Your task to perform on an android device: turn on the 24-hour format for clock Image 0: 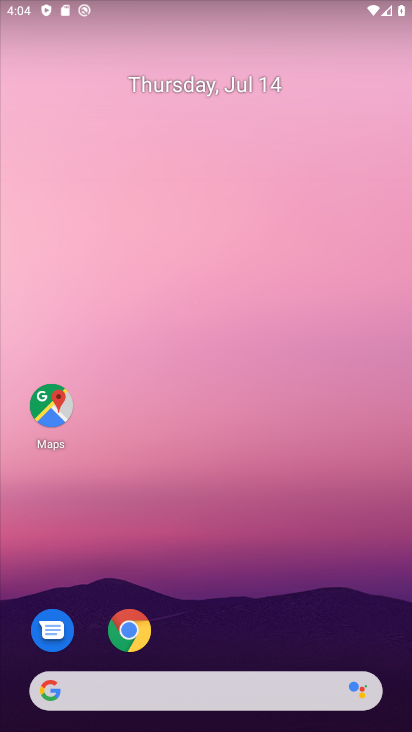
Step 0: drag from (224, 307) to (231, 113)
Your task to perform on an android device: turn on the 24-hour format for clock Image 1: 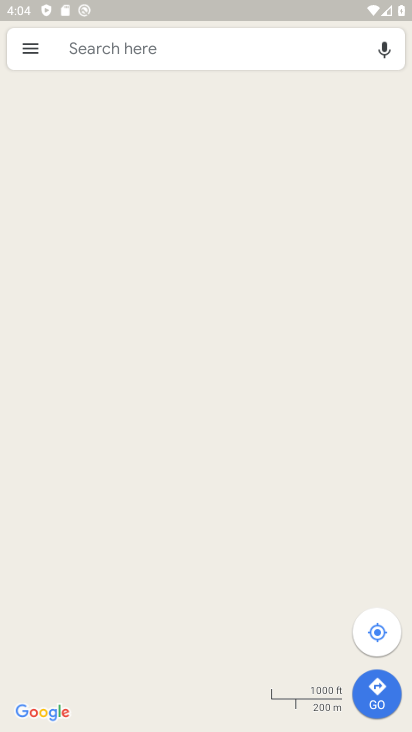
Step 1: press home button
Your task to perform on an android device: turn on the 24-hour format for clock Image 2: 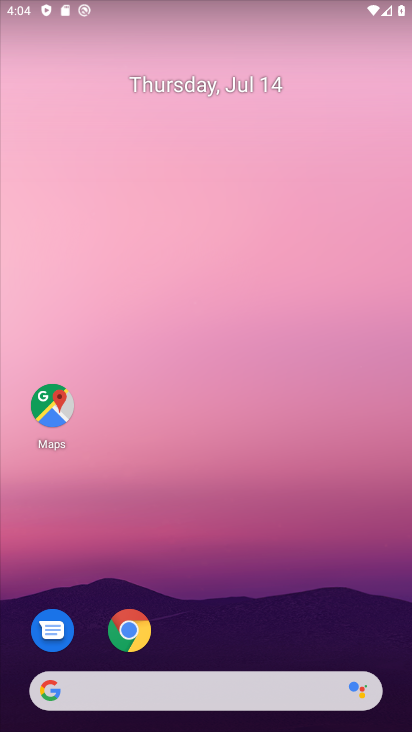
Step 2: drag from (207, 606) to (227, 27)
Your task to perform on an android device: turn on the 24-hour format for clock Image 3: 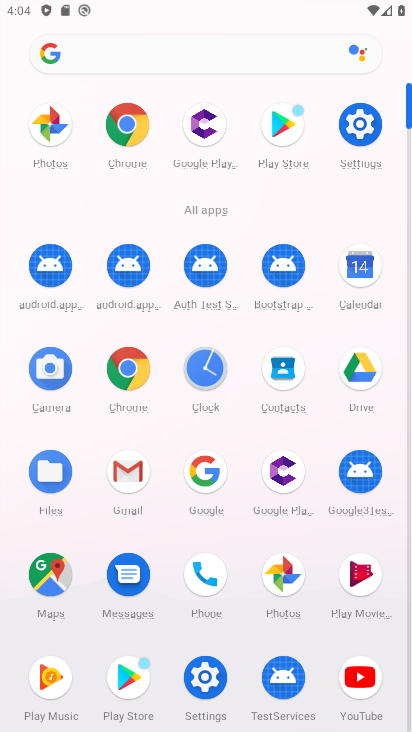
Step 3: click (204, 362)
Your task to perform on an android device: turn on the 24-hour format for clock Image 4: 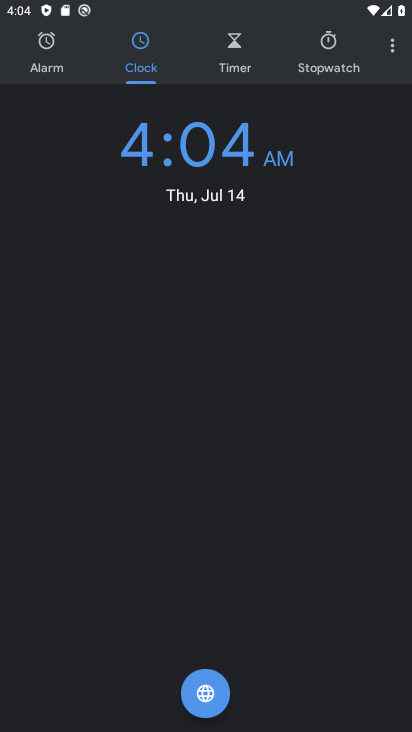
Step 4: click (388, 44)
Your task to perform on an android device: turn on the 24-hour format for clock Image 5: 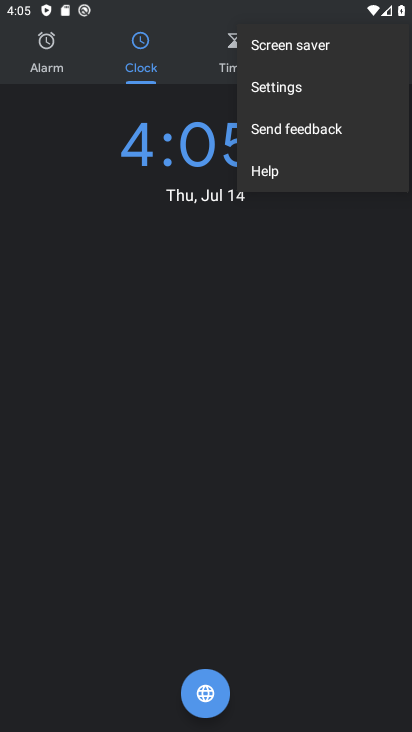
Step 5: click (308, 98)
Your task to perform on an android device: turn on the 24-hour format for clock Image 6: 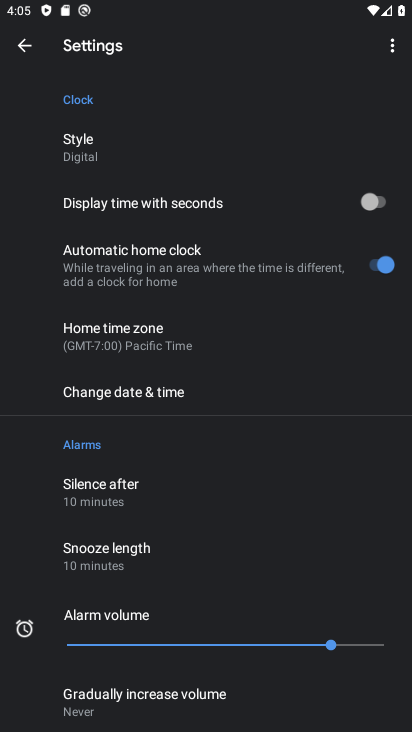
Step 6: click (164, 391)
Your task to perform on an android device: turn on the 24-hour format for clock Image 7: 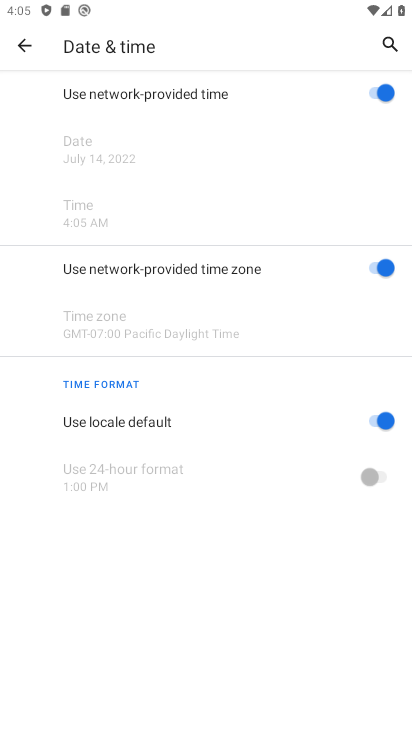
Step 7: click (374, 418)
Your task to perform on an android device: turn on the 24-hour format for clock Image 8: 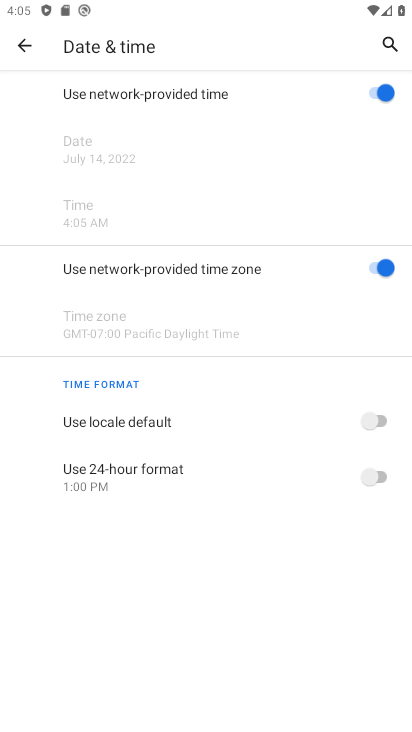
Step 8: click (375, 469)
Your task to perform on an android device: turn on the 24-hour format for clock Image 9: 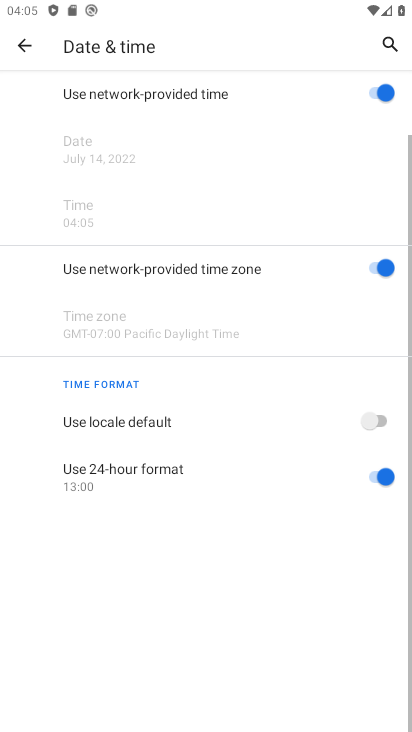
Step 9: task complete